Your task to perform on an android device: Open Maps and search for coffee Image 0: 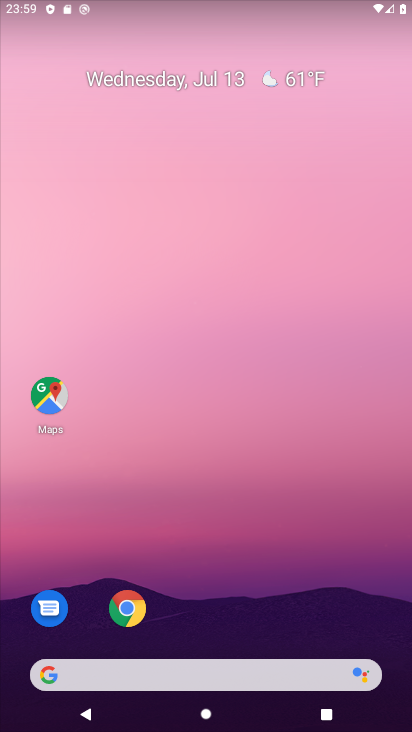
Step 0: drag from (207, 613) to (243, 10)
Your task to perform on an android device: Open Maps and search for coffee Image 1: 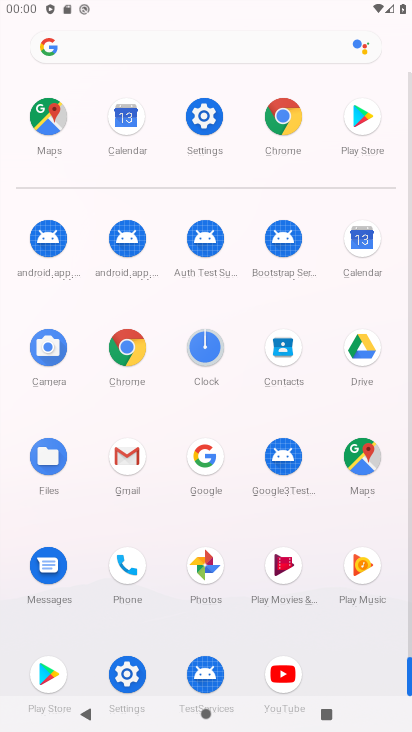
Step 1: click (357, 459)
Your task to perform on an android device: Open Maps and search for coffee Image 2: 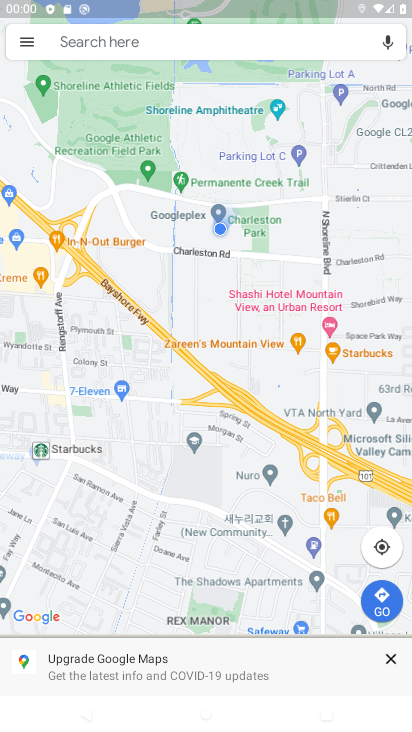
Step 2: click (182, 40)
Your task to perform on an android device: Open Maps and search for coffee Image 3: 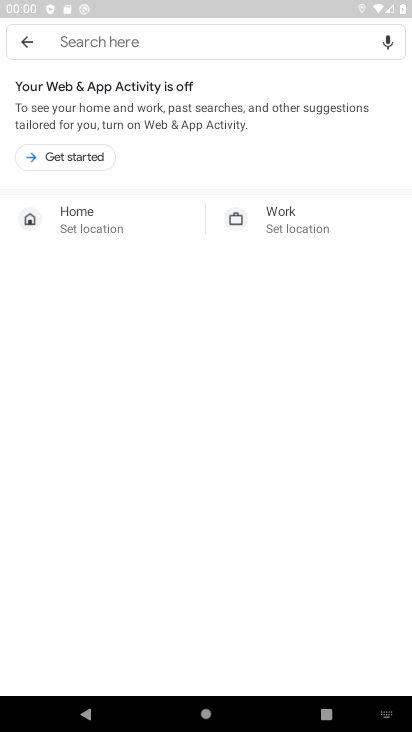
Step 3: type "coffee"
Your task to perform on an android device: Open Maps and search for coffee Image 4: 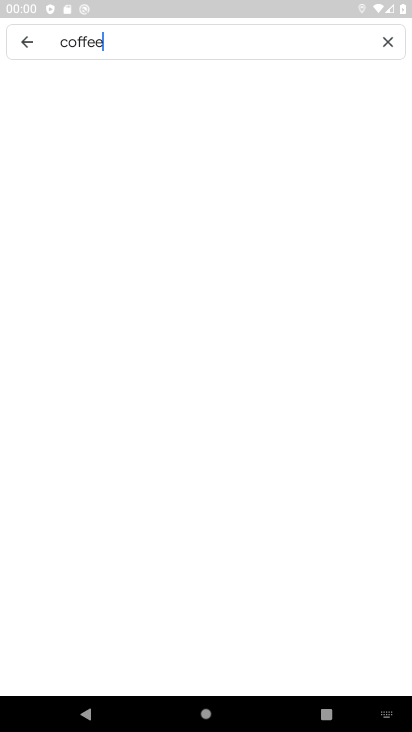
Step 4: type ""
Your task to perform on an android device: Open Maps and search for coffee Image 5: 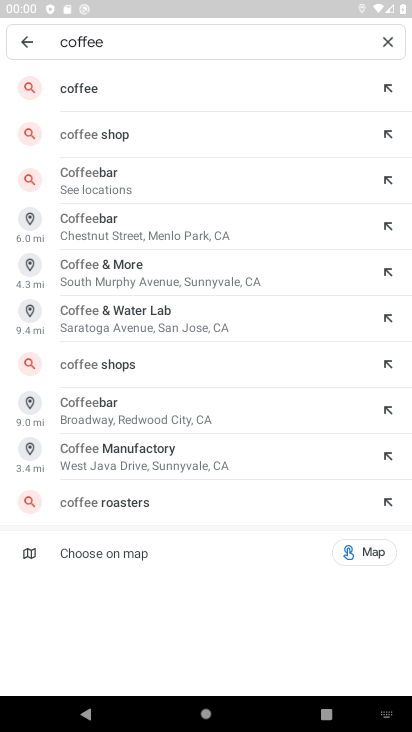
Step 5: click (124, 133)
Your task to perform on an android device: Open Maps and search for coffee Image 6: 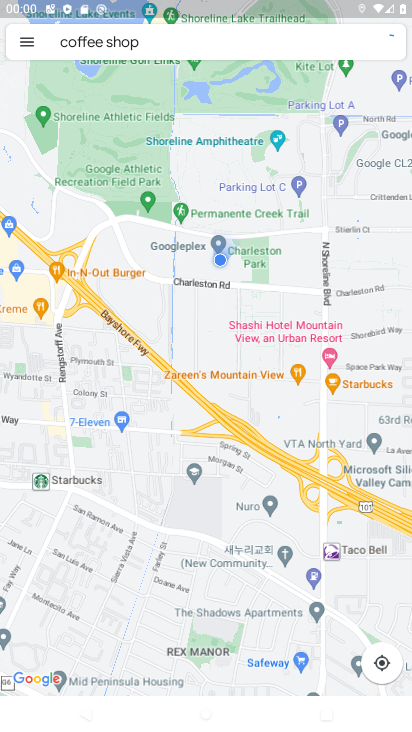
Step 6: task complete